Your task to perform on an android device: turn off translation in the chrome app Image 0: 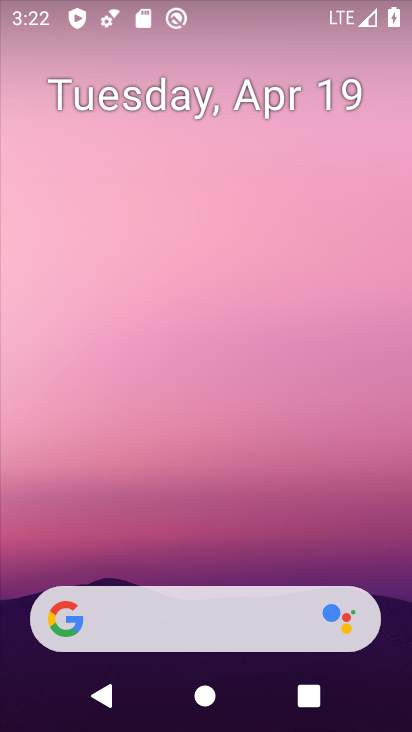
Step 0: drag from (279, 542) to (292, 20)
Your task to perform on an android device: turn off translation in the chrome app Image 1: 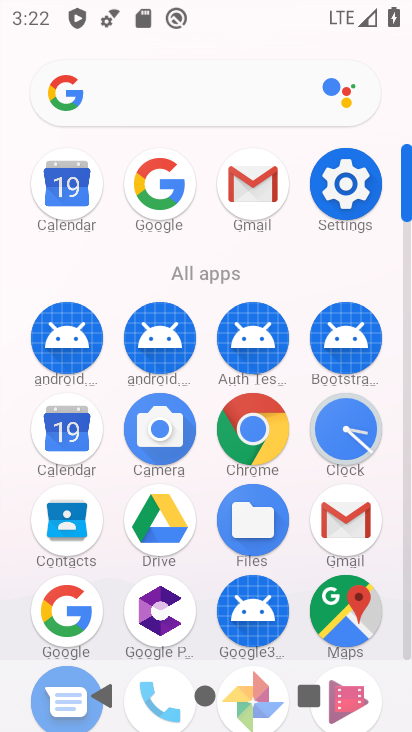
Step 1: click (251, 434)
Your task to perform on an android device: turn off translation in the chrome app Image 2: 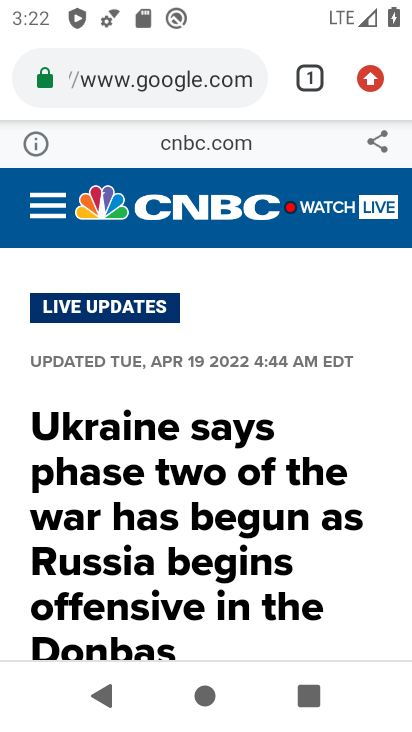
Step 2: click (368, 76)
Your task to perform on an android device: turn off translation in the chrome app Image 3: 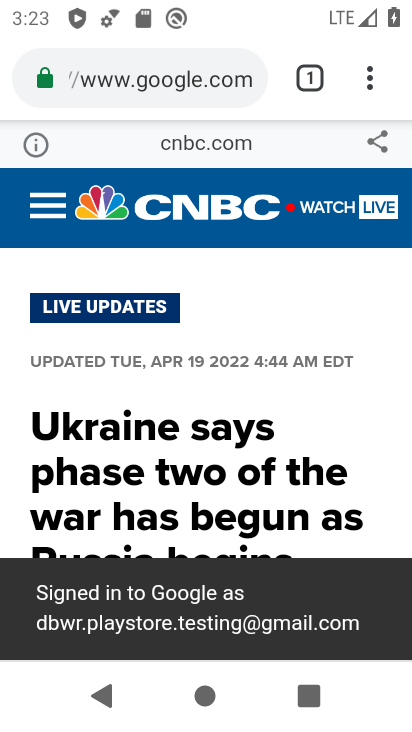
Step 3: click (368, 76)
Your task to perform on an android device: turn off translation in the chrome app Image 4: 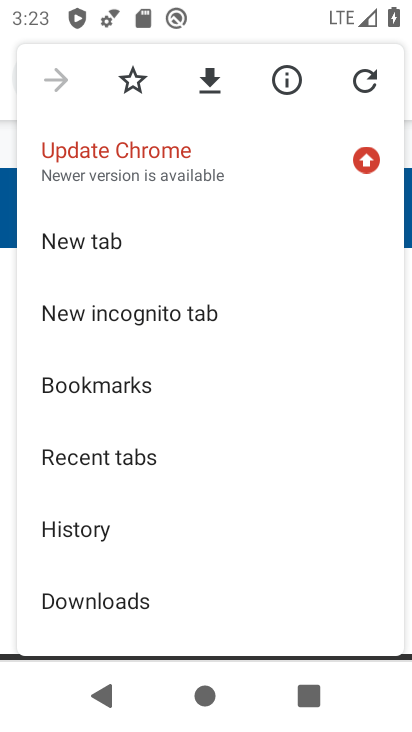
Step 4: drag from (192, 461) to (206, 360)
Your task to perform on an android device: turn off translation in the chrome app Image 5: 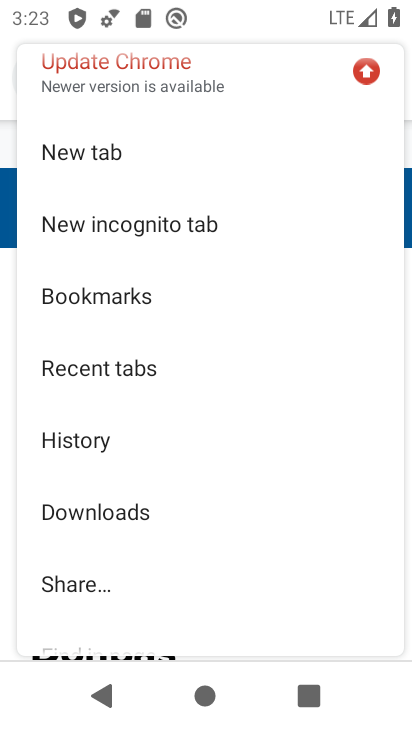
Step 5: drag from (169, 517) to (205, 409)
Your task to perform on an android device: turn off translation in the chrome app Image 6: 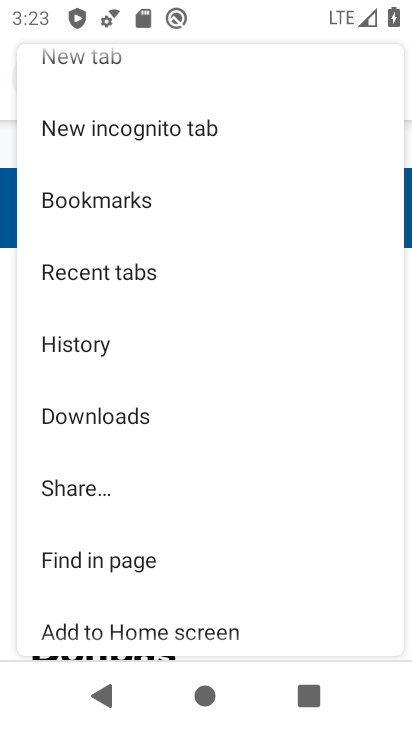
Step 6: drag from (189, 535) to (206, 453)
Your task to perform on an android device: turn off translation in the chrome app Image 7: 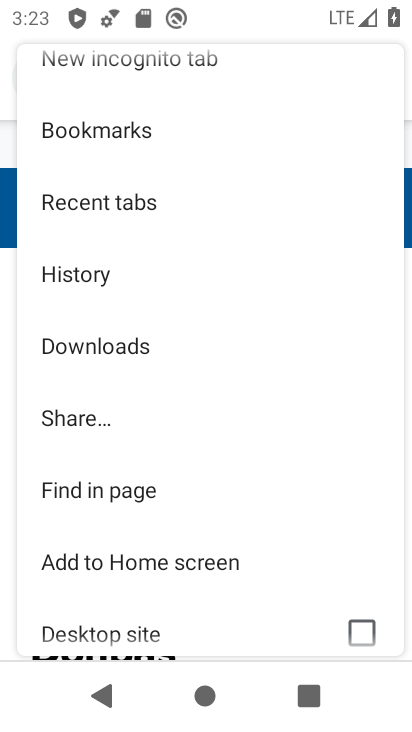
Step 7: drag from (221, 582) to (241, 507)
Your task to perform on an android device: turn off translation in the chrome app Image 8: 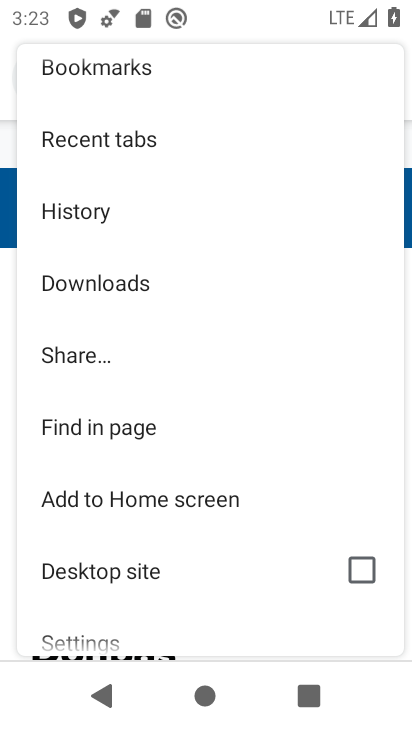
Step 8: drag from (211, 583) to (254, 463)
Your task to perform on an android device: turn off translation in the chrome app Image 9: 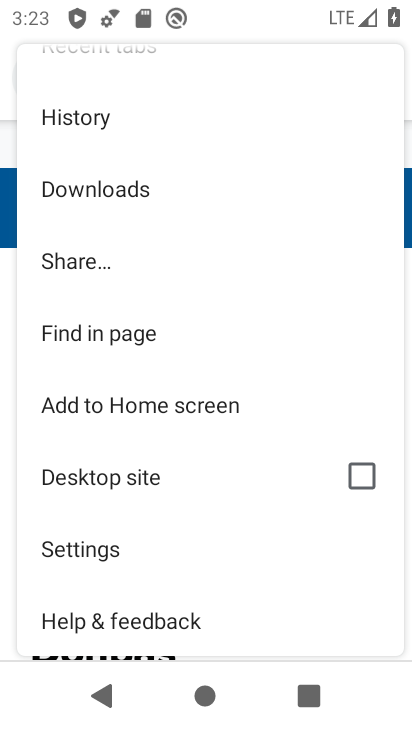
Step 9: click (92, 546)
Your task to perform on an android device: turn off translation in the chrome app Image 10: 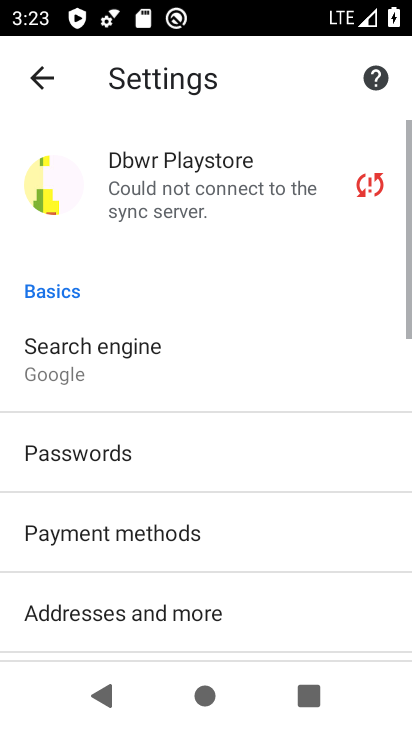
Step 10: drag from (148, 544) to (195, 444)
Your task to perform on an android device: turn off translation in the chrome app Image 11: 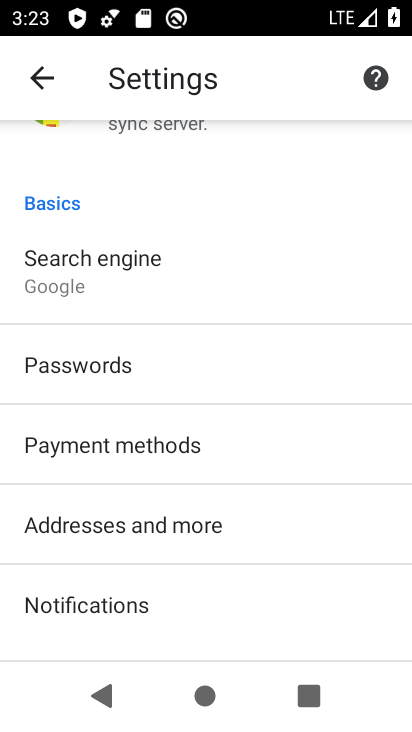
Step 11: drag from (181, 588) to (239, 486)
Your task to perform on an android device: turn off translation in the chrome app Image 12: 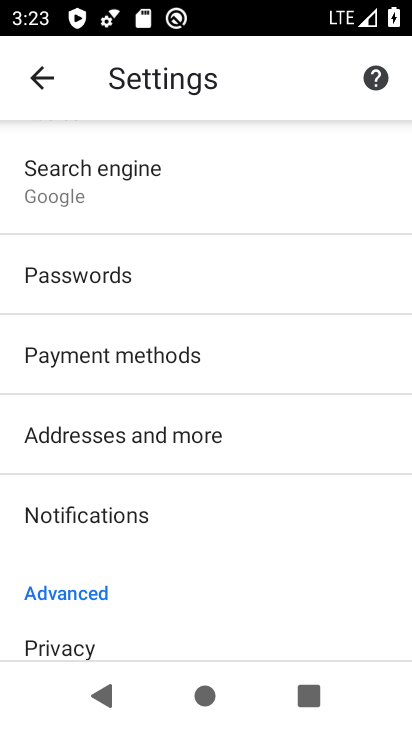
Step 12: drag from (196, 554) to (262, 448)
Your task to perform on an android device: turn off translation in the chrome app Image 13: 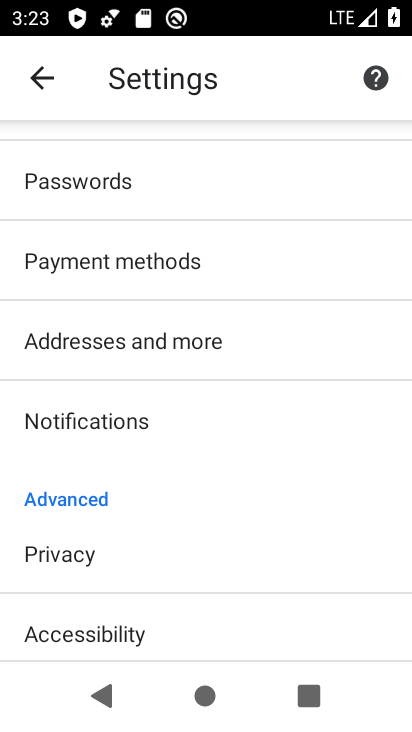
Step 13: drag from (188, 554) to (259, 444)
Your task to perform on an android device: turn off translation in the chrome app Image 14: 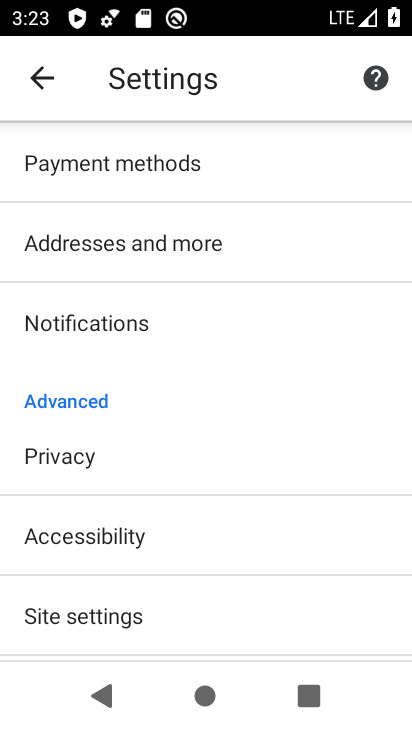
Step 14: drag from (185, 599) to (250, 477)
Your task to perform on an android device: turn off translation in the chrome app Image 15: 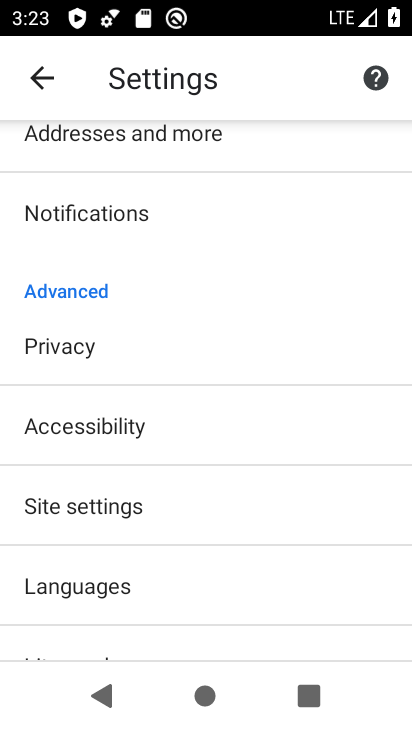
Step 15: click (91, 593)
Your task to perform on an android device: turn off translation in the chrome app Image 16: 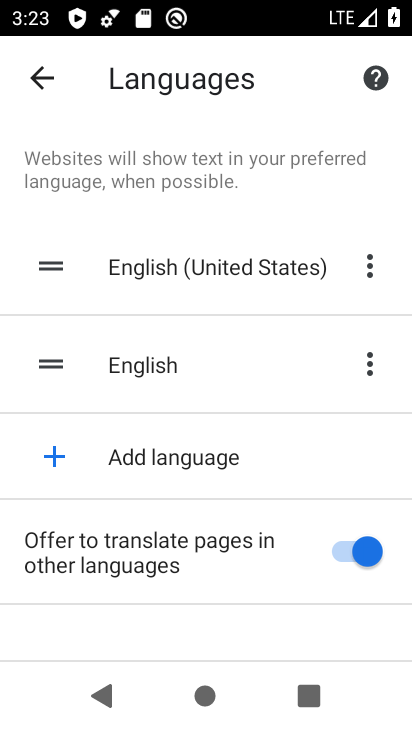
Step 16: click (370, 547)
Your task to perform on an android device: turn off translation in the chrome app Image 17: 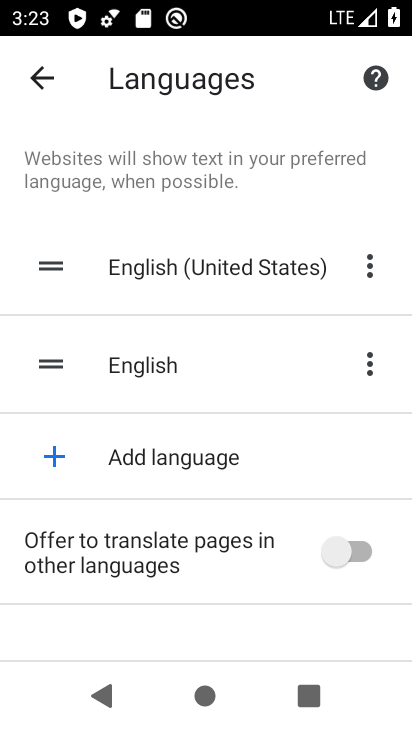
Step 17: task complete